Your task to perform on an android device: Open Youtube and go to the subscriptions tab Image 0: 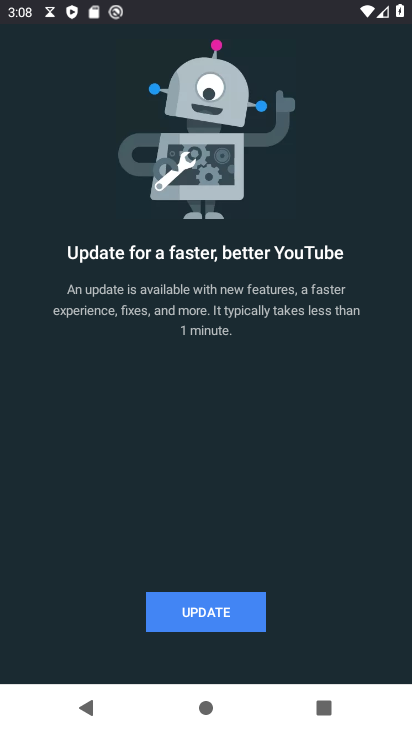
Step 0: press home button
Your task to perform on an android device: Open Youtube and go to the subscriptions tab Image 1: 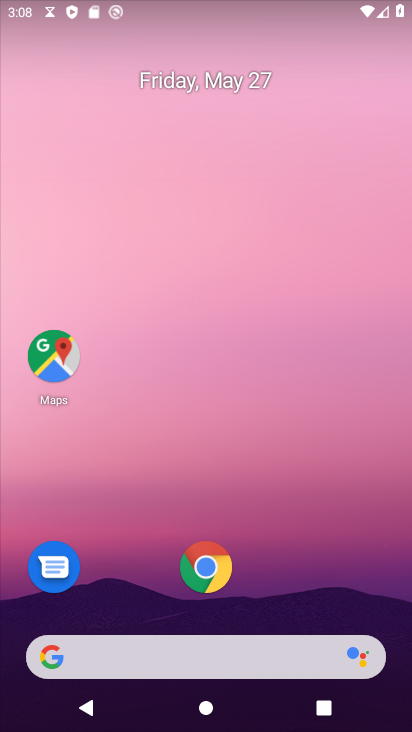
Step 1: drag from (262, 591) to (339, 23)
Your task to perform on an android device: Open Youtube and go to the subscriptions tab Image 2: 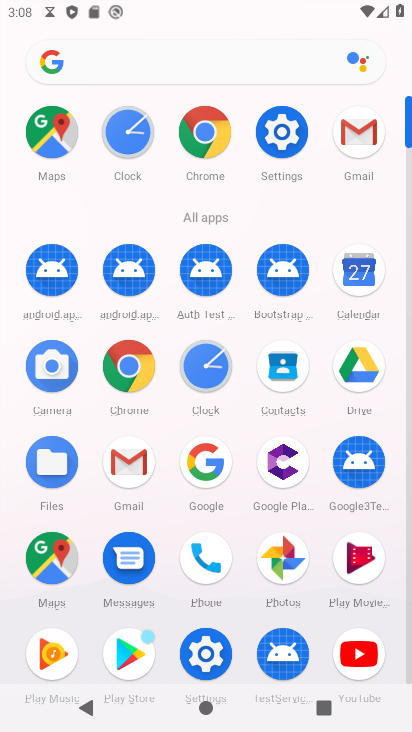
Step 2: click (355, 660)
Your task to perform on an android device: Open Youtube and go to the subscriptions tab Image 3: 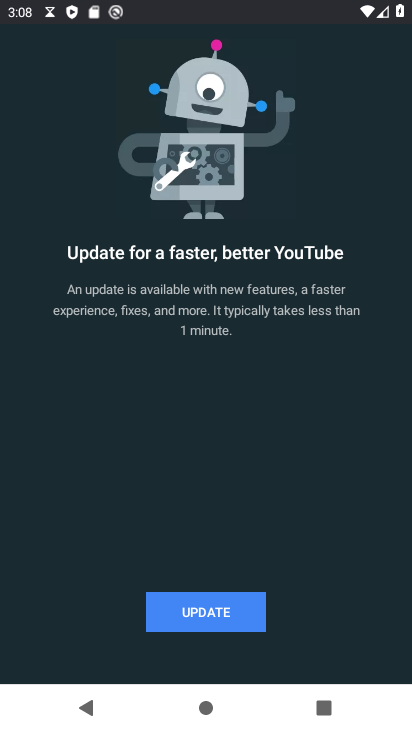
Step 3: click (224, 614)
Your task to perform on an android device: Open Youtube and go to the subscriptions tab Image 4: 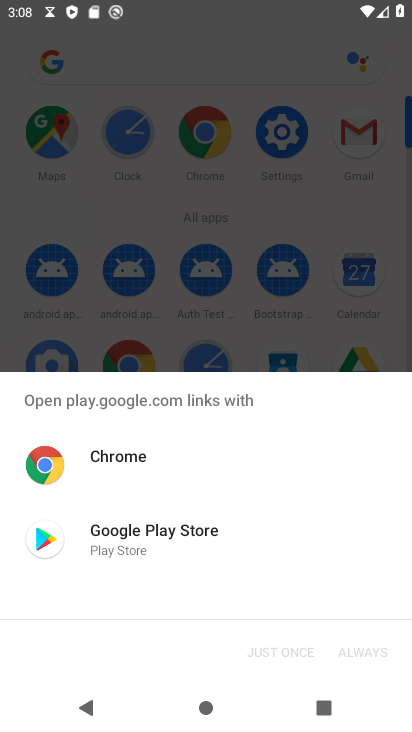
Step 4: click (167, 541)
Your task to perform on an android device: Open Youtube and go to the subscriptions tab Image 5: 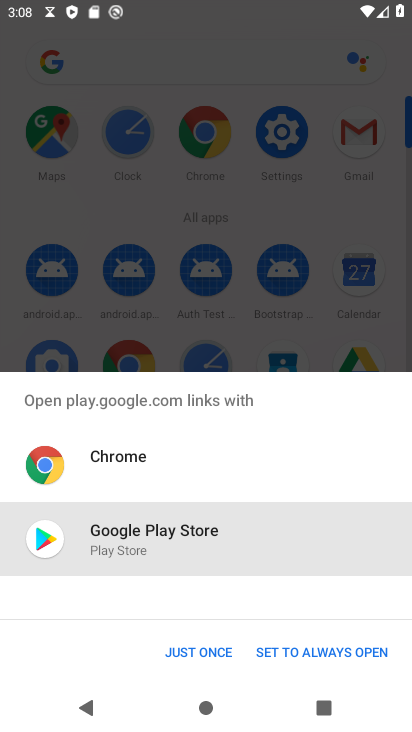
Step 5: click (214, 645)
Your task to perform on an android device: Open Youtube and go to the subscriptions tab Image 6: 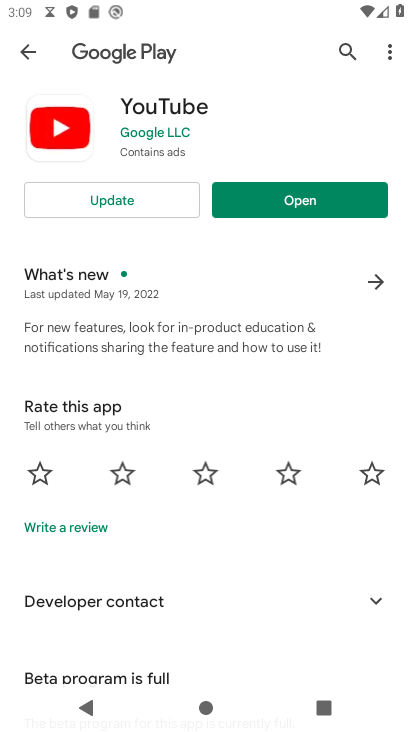
Step 6: click (107, 201)
Your task to perform on an android device: Open Youtube and go to the subscriptions tab Image 7: 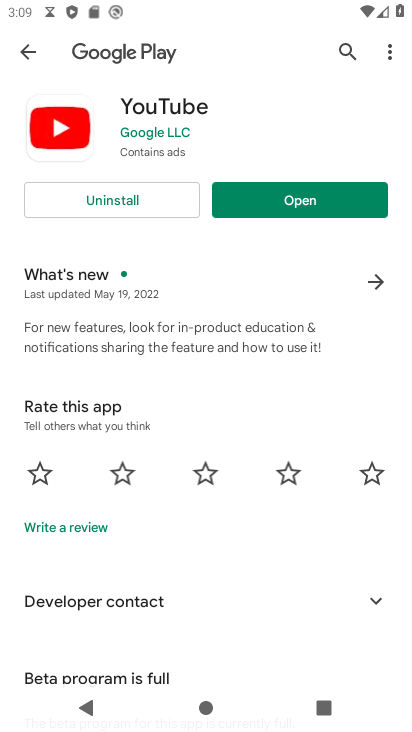
Step 7: click (276, 200)
Your task to perform on an android device: Open Youtube and go to the subscriptions tab Image 8: 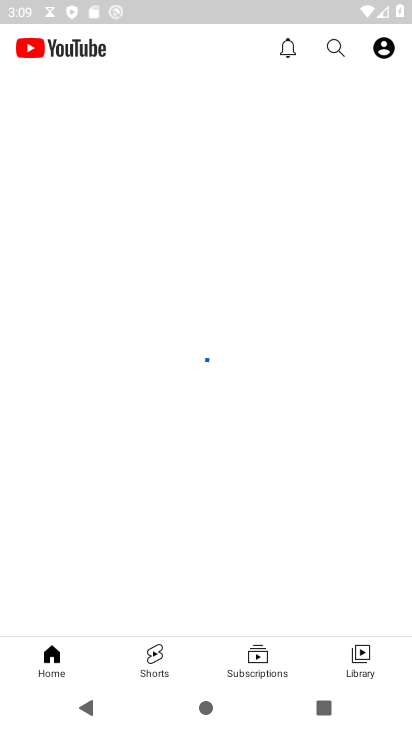
Step 8: click (249, 665)
Your task to perform on an android device: Open Youtube and go to the subscriptions tab Image 9: 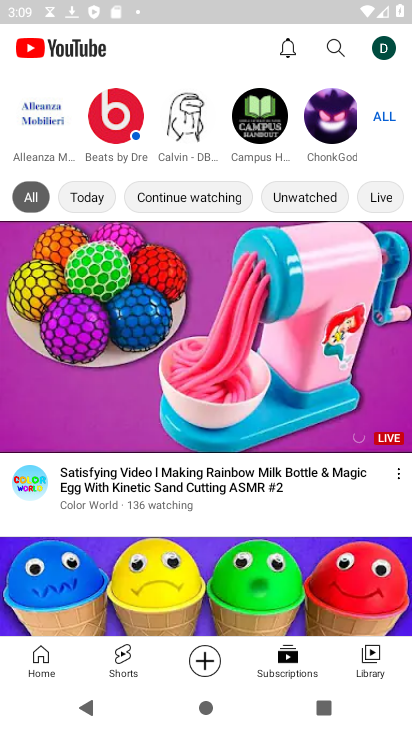
Step 9: task complete